Your task to perform on an android device: turn on the 24-hour format for clock Image 0: 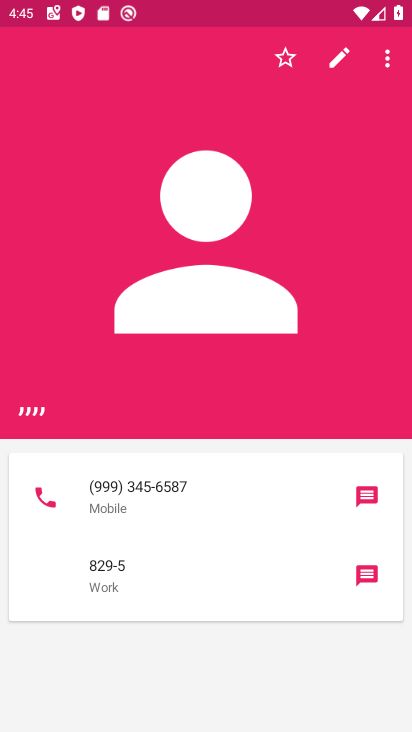
Step 0: press home button
Your task to perform on an android device: turn on the 24-hour format for clock Image 1: 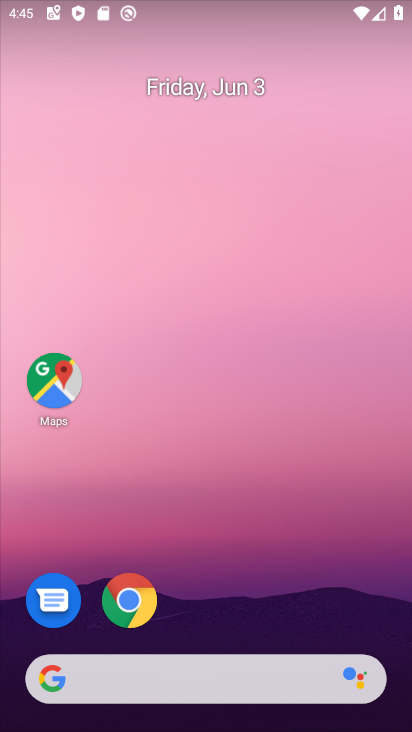
Step 1: drag from (248, 631) to (246, 185)
Your task to perform on an android device: turn on the 24-hour format for clock Image 2: 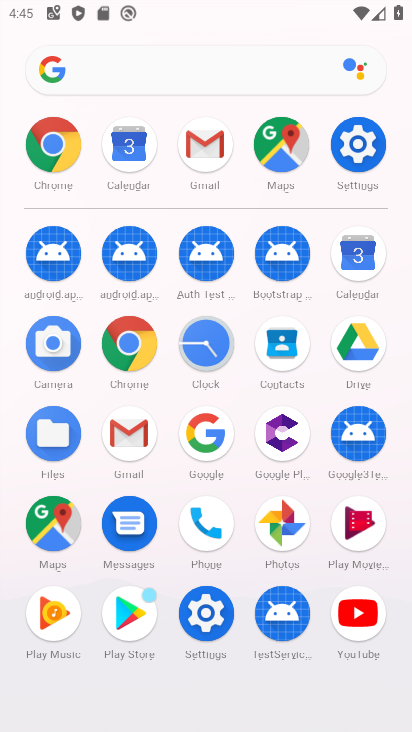
Step 2: click (362, 151)
Your task to perform on an android device: turn on the 24-hour format for clock Image 3: 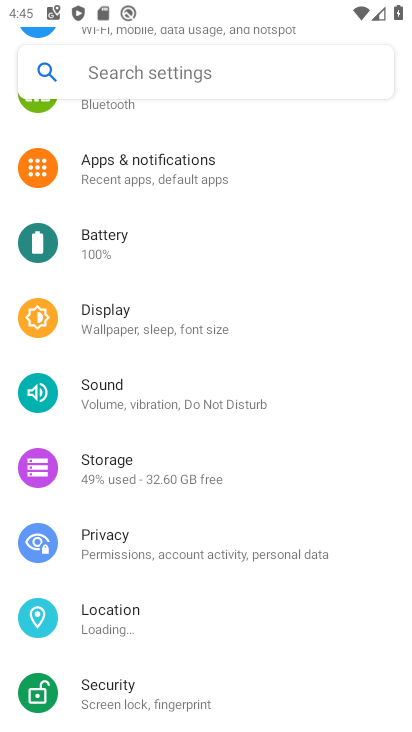
Step 3: drag from (155, 639) to (186, 346)
Your task to perform on an android device: turn on the 24-hour format for clock Image 4: 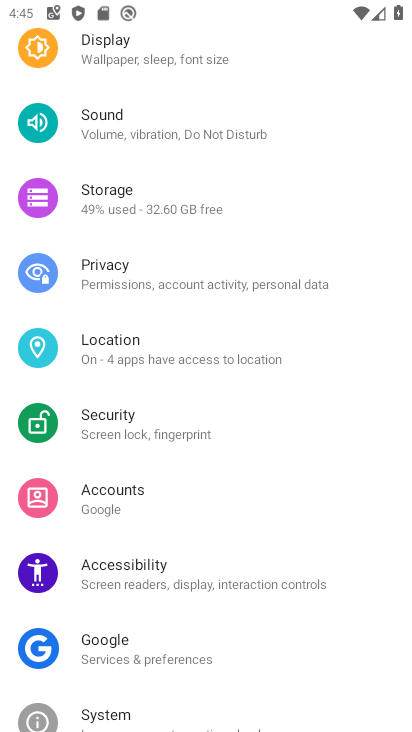
Step 4: drag from (185, 695) to (209, 568)
Your task to perform on an android device: turn on the 24-hour format for clock Image 5: 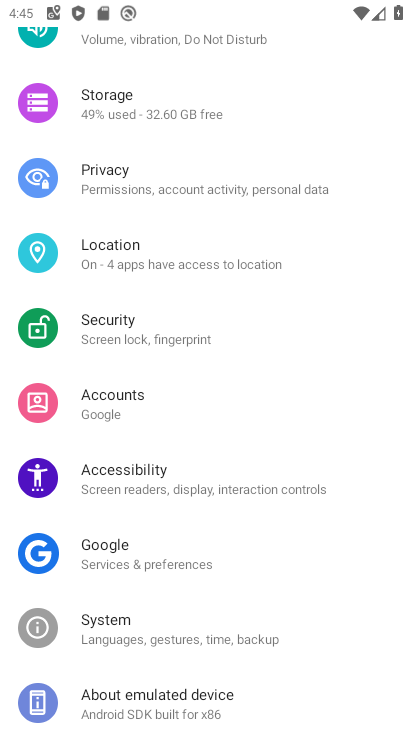
Step 5: click (168, 635)
Your task to perform on an android device: turn on the 24-hour format for clock Image 6: 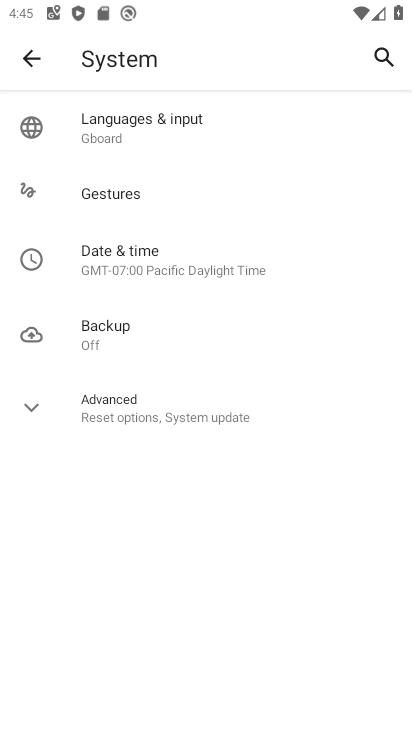
Step 6: click (112, 264)
Your task to perform on an android device: turn on the 24-hour format for clock Image 7: 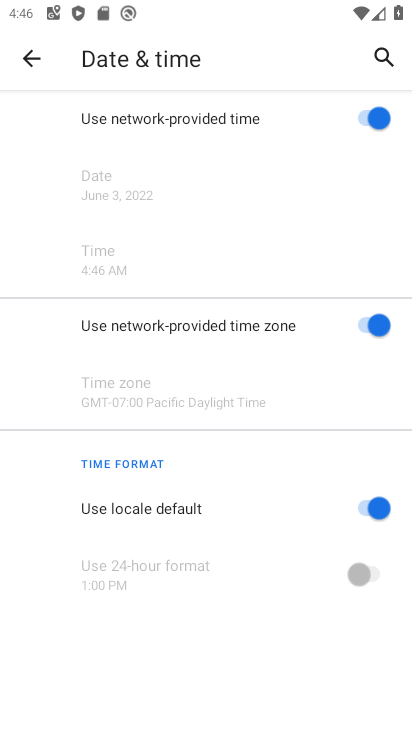
Step 7: click (363, 514)
Your task to perform on an android device: turn on the 24-hour format for clock Image 8: 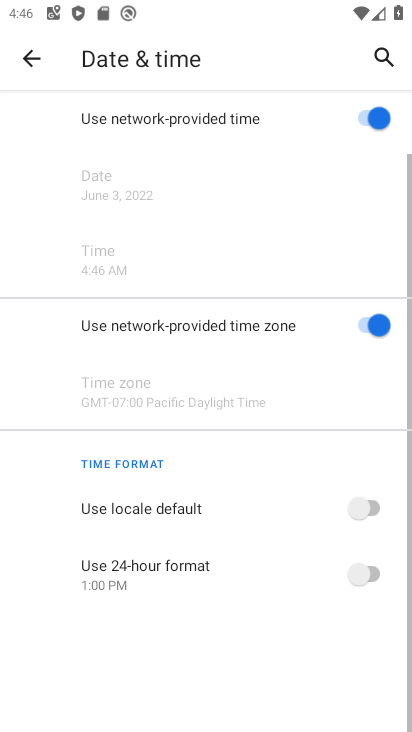
Step 8: click (381, 580)
Your task to perform on an android device: turn on the 24-hour format for clock Image 9: 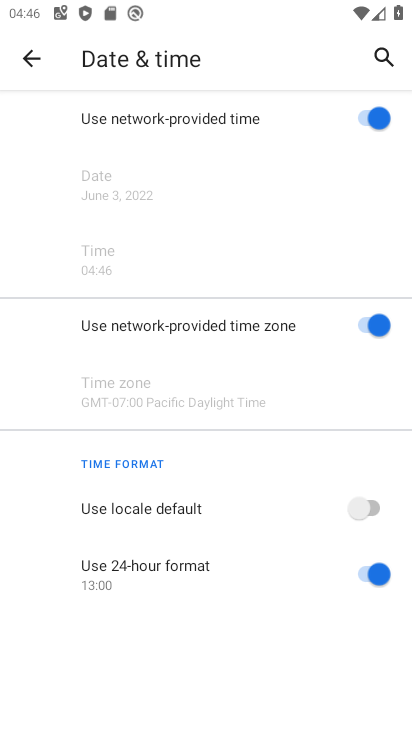
Step 9: task complete